Your task to perform on an android device: change notification settings in the gmail app Image 0: 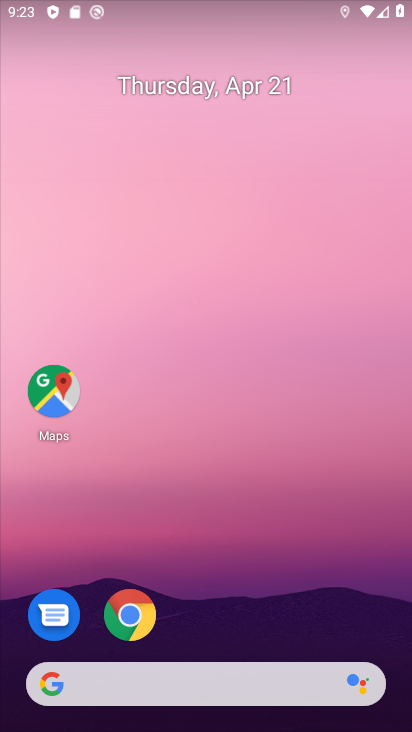
Step 0: drag from (205, 720) to (210, 113)
Your task to perform on an android device: change notification settings in the gmail app Image 1: 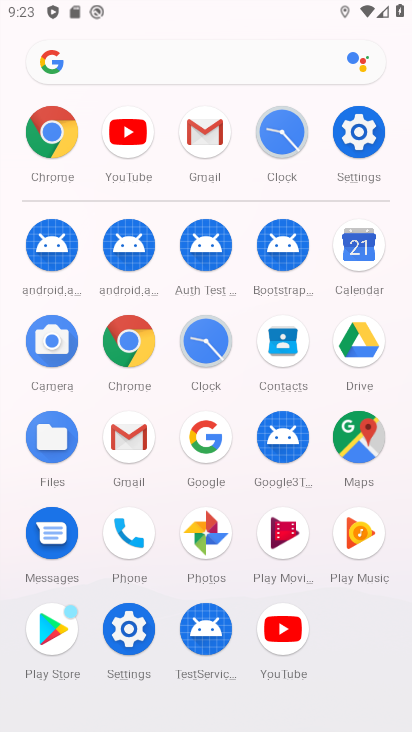
Step 1: click (209, 127)
Your task to perform on an android device: change notification settings in the gmail app Image 2: 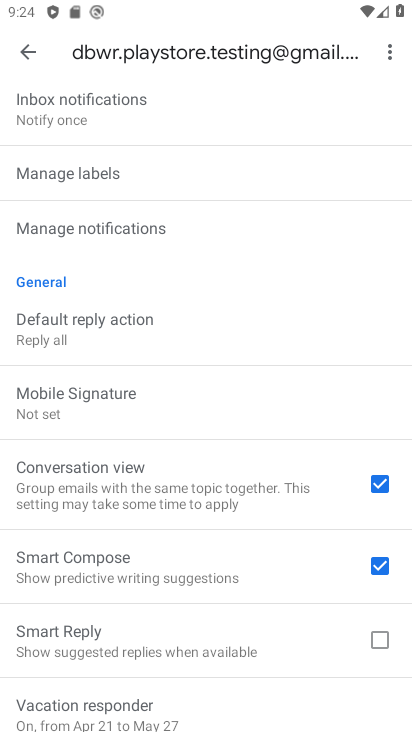
Step 2: drag from (174, 132) to (163, 471)
Your task to perform on an android device: change notification settings in the gmail app Image 3: 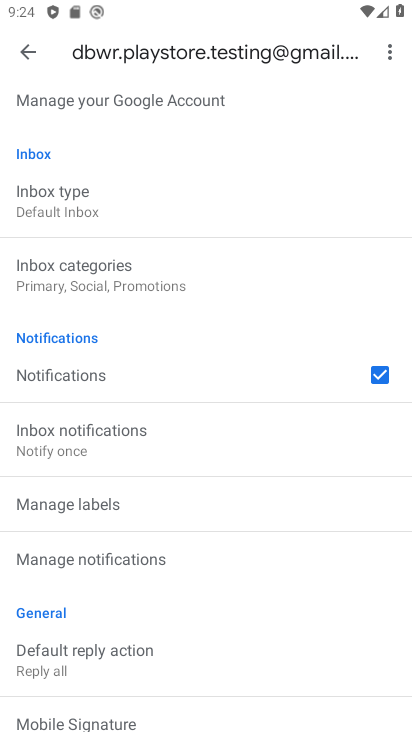
Step 3: click (82, 442)
Your task to perform on an android device: change notification settings in the gmail app Image 4: 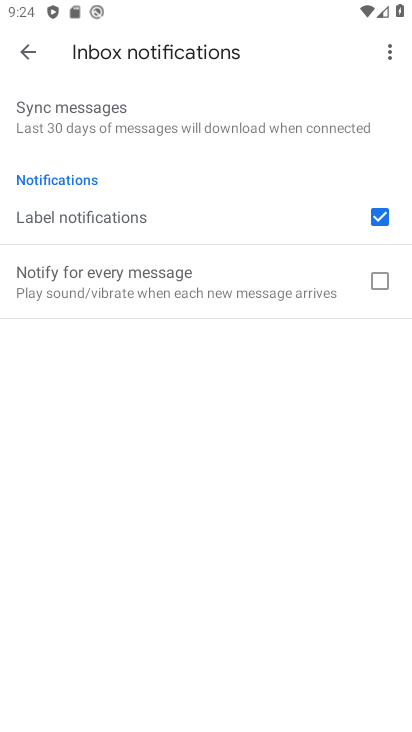
Step 4: click (377, 280)
Your task to perform on an android device: change notification settings in the gmail app Image 5: 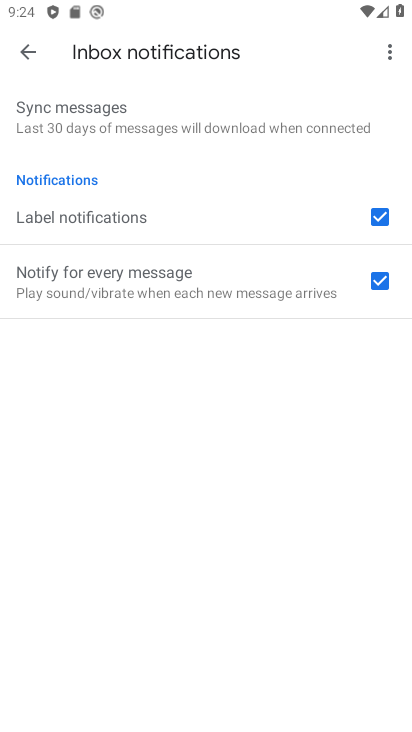
Step 5: task complete